Your task to perform on an android device: see sites visited before in the chrome app Image 0: 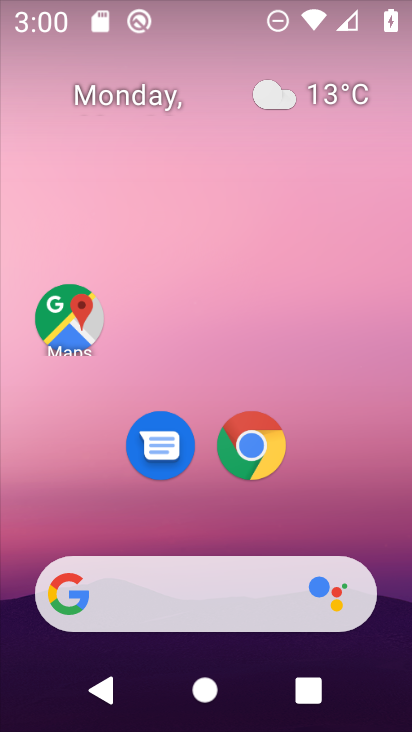
Step 0: drag from (386, 643) to (330, 15)
Your task to perform on an android device: see sites visited before in the chrome app Image 1: 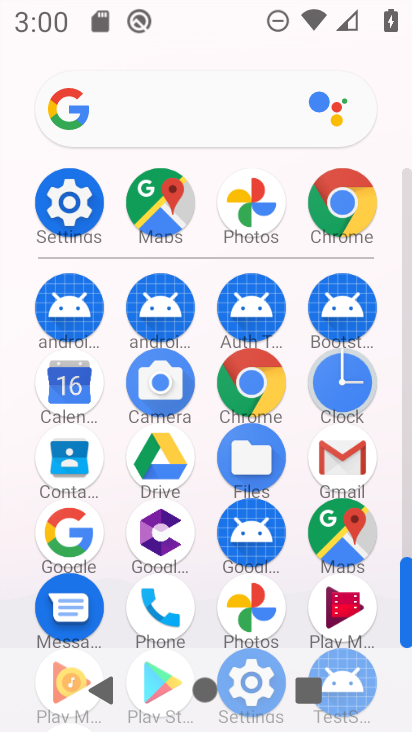
Step 1: click (242, 373)
Your task to perform on an android device: see sites visited before in the chrome app Image 2: 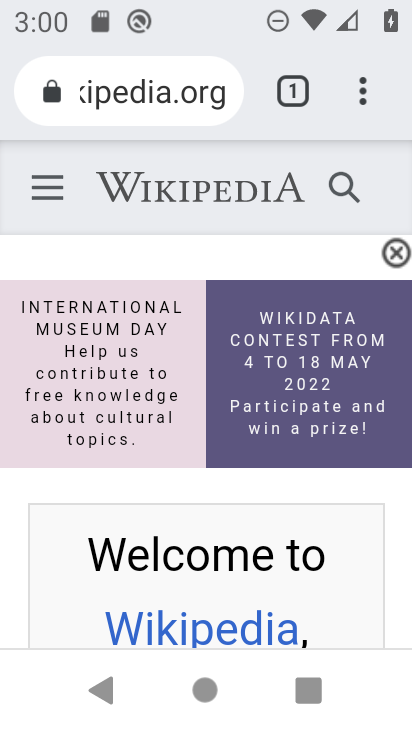
Step 2: press back button
Your task to perform on an android device: see sites visited before in the chrome app Image 3: 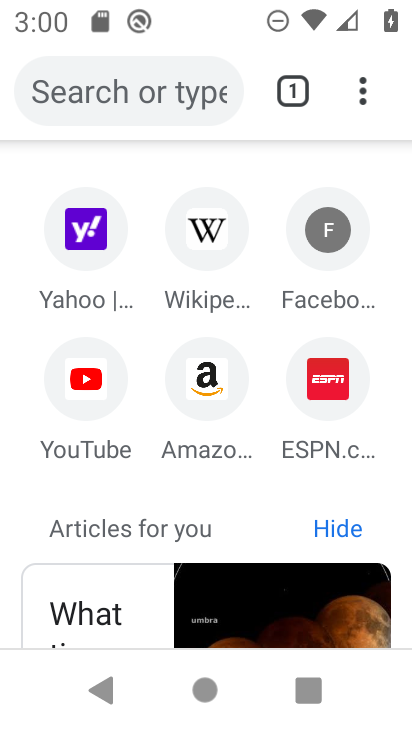
Step 3: click (364, 82)
Your task to perform on an android device: see sites visited before in the chrome app Image 4: 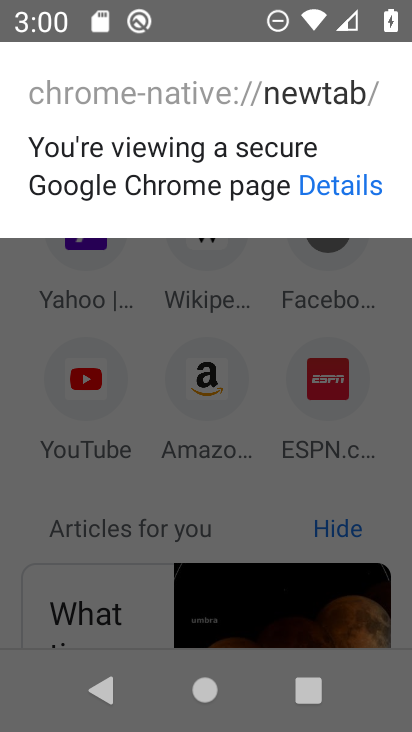
Step 4: click (364, 82)
Your task to perform on an android device: see sites visited before in the chrome app Image 5: 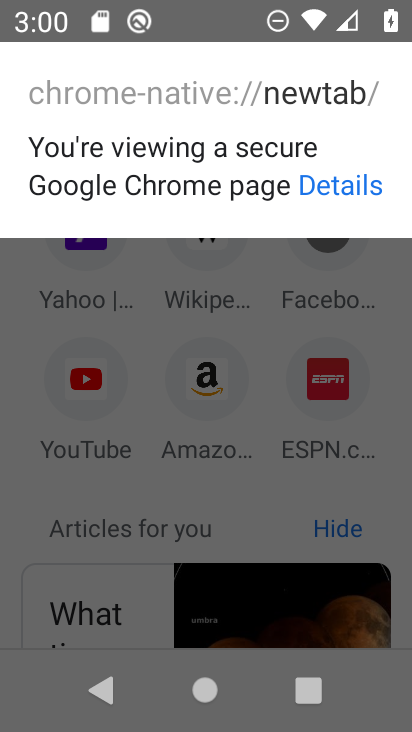
Step 5: click (376, 318)
Your task to perform on an android device: see sites visited before in the chrome app Image 6: 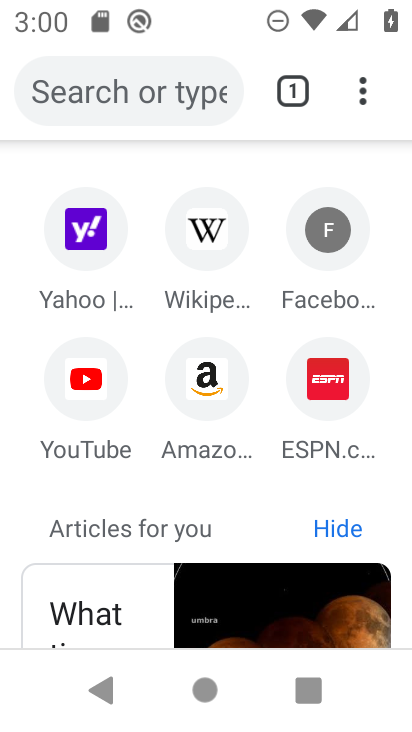
Step 6: click (358, 98)
Your task to perform on an android device: see sites visited before in the chrome app Image 7: 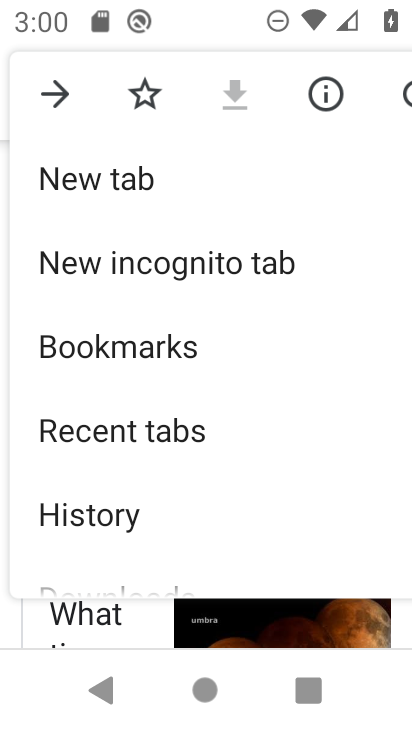
Step 7: click (151, 523)
Your task to perform on an android device: see sites visited before in the chrome app Image 8: 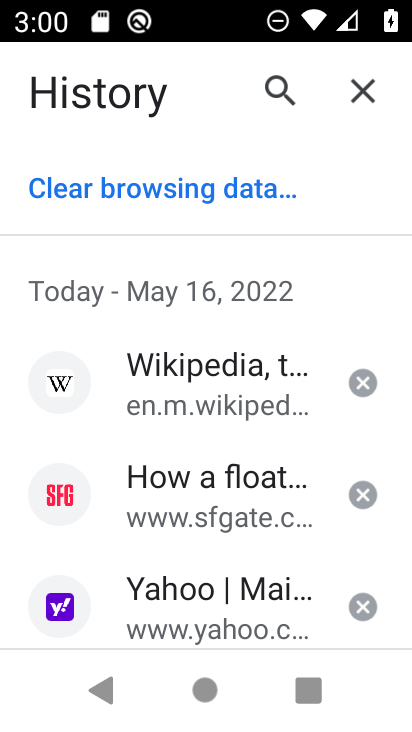
Step 8: click (207, 389)
Your task to perform on an android device: see sites visited before in the chrome app Image 9: 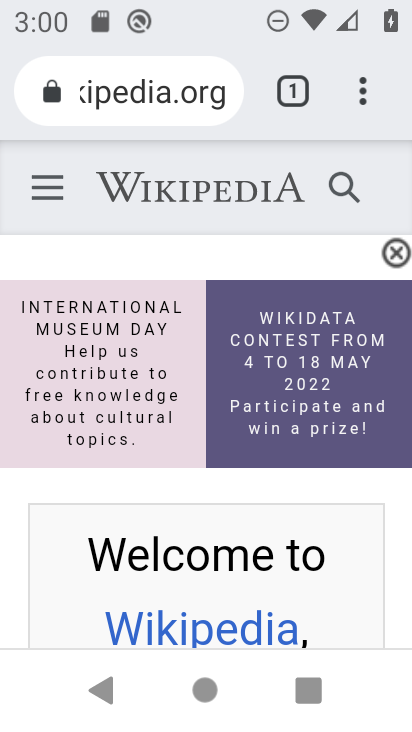
Step 9: task complete